Your task to perform on an android device: Open Maps and search for coffee Image 0: 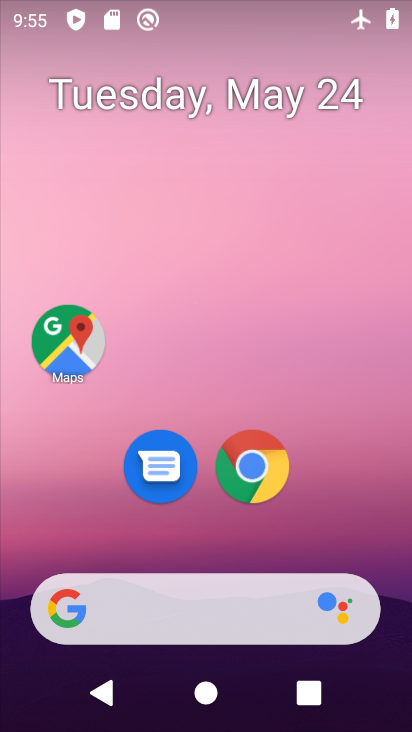
Step 0: click (86, 333)
Your task to perform on an android device: Open Maps and search for coffee Image 1: 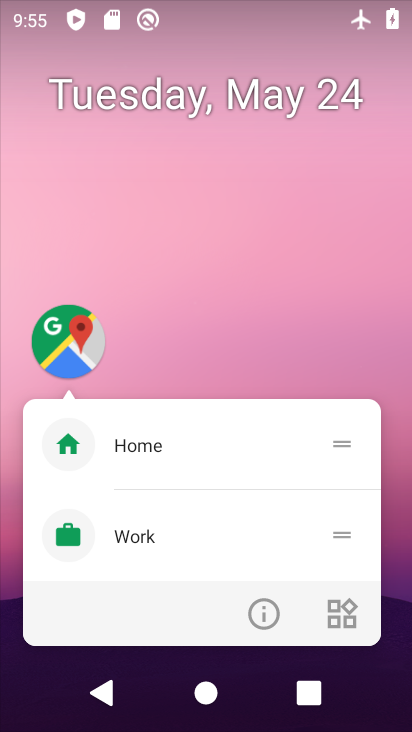
Step 1: click (77, 345)
Your task to perform on an android device: Open Maps and search for coffee Image 2: 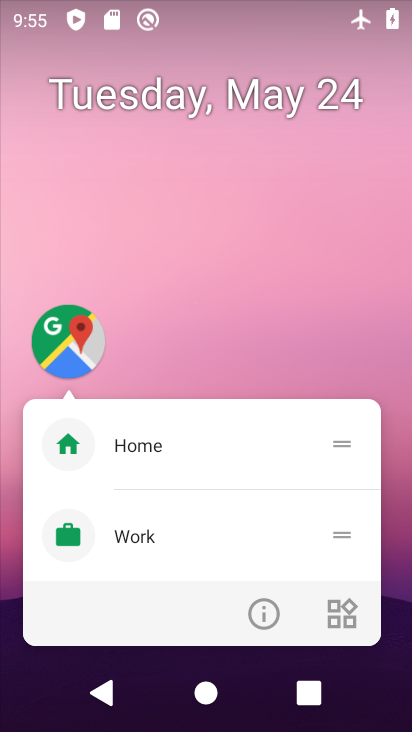
Step 2: click (71, 346)
Your task to perform on an android device: Open Maps and search for coffee Image 3: 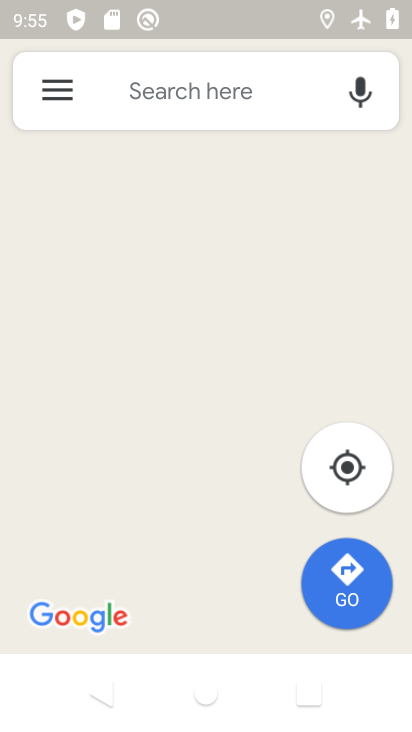
Step 3: click (212, 91)
Your task to perform on an android device: Open Maps and search for coffee Image 4: 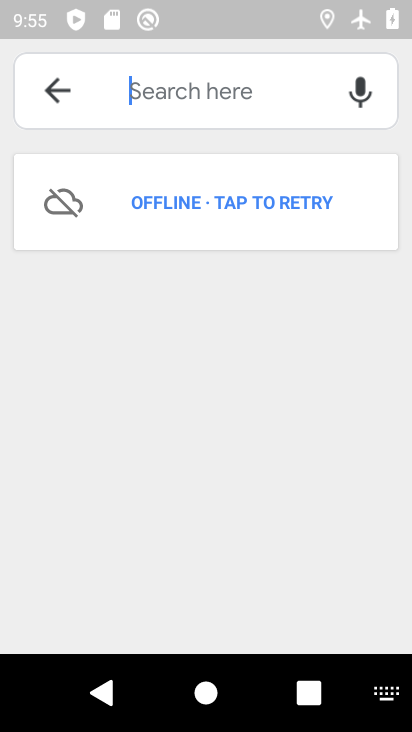
Step 4: type "coffee"
Your task to perform on an android device: Open Maps and search for coffee Image 5: 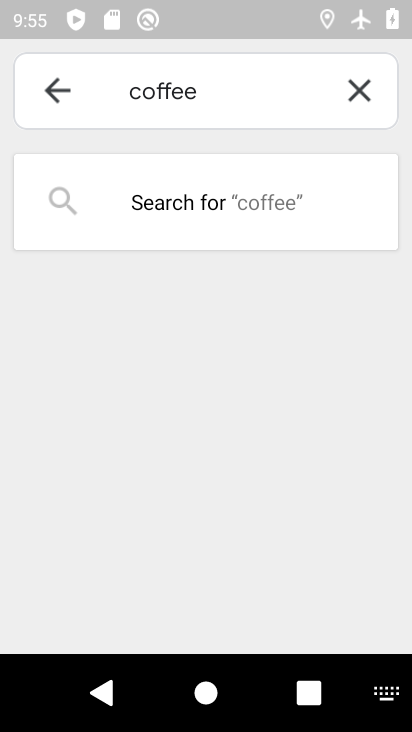
Step 5: click (277, 221)
Your task to perform on an android device: Open Maps and search for coffee Image 6: 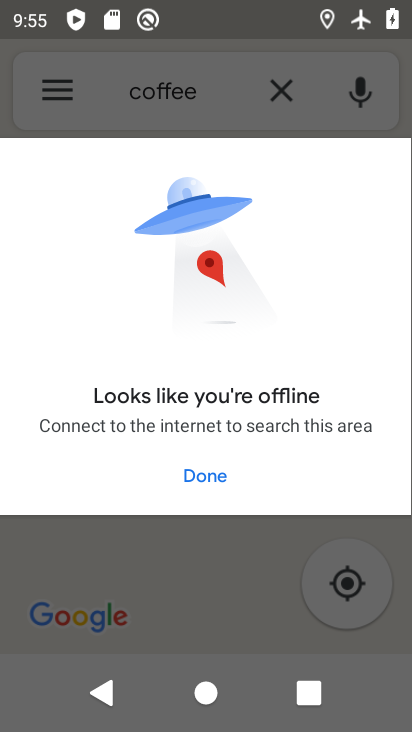
Step 6: task complete